Your task to perform on an android device: Go to display settings Image 0: 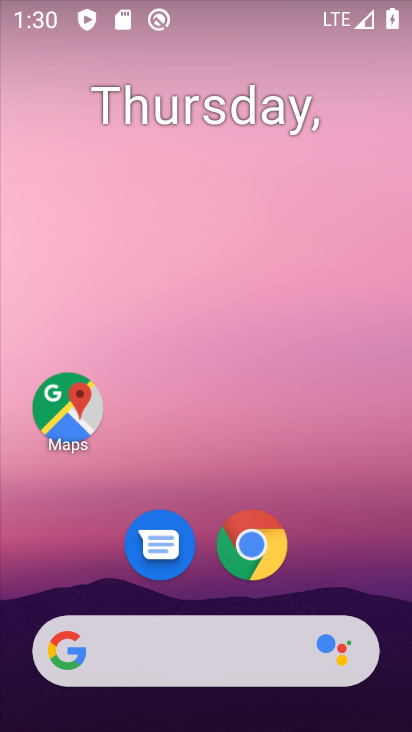
Step 0: drag from (126, 703) to (218, 111)
Your task to perform on an android device: Go to display settings Image 1: 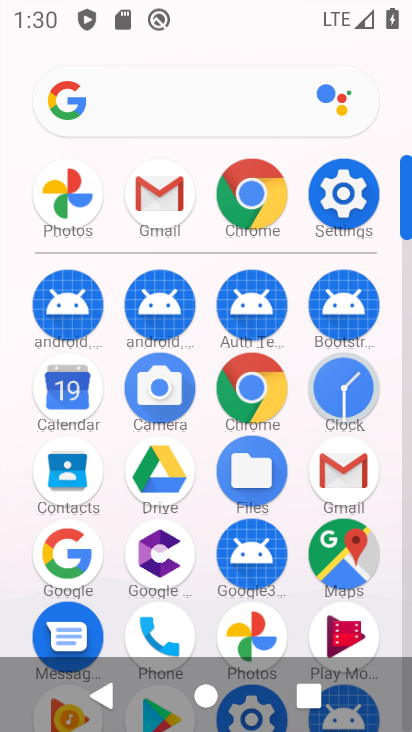
Step 1: click (337, 194)
Your task to perform on an android device: Go to display settings Image 2: 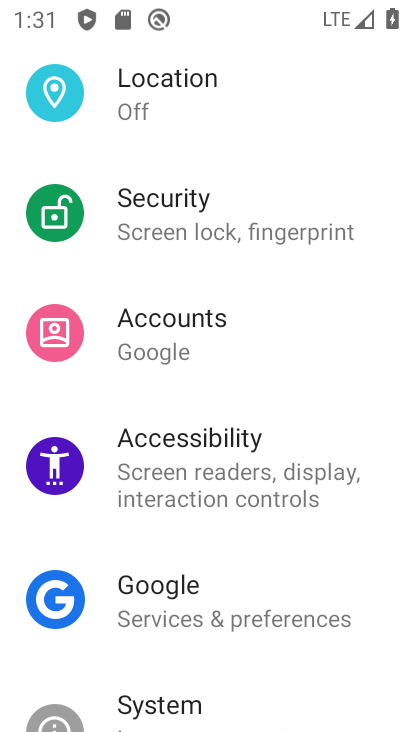
Step 2: drag from (262, 611) to (165, 44)
Your task to perform on an android device: Go to display settings Image 3: 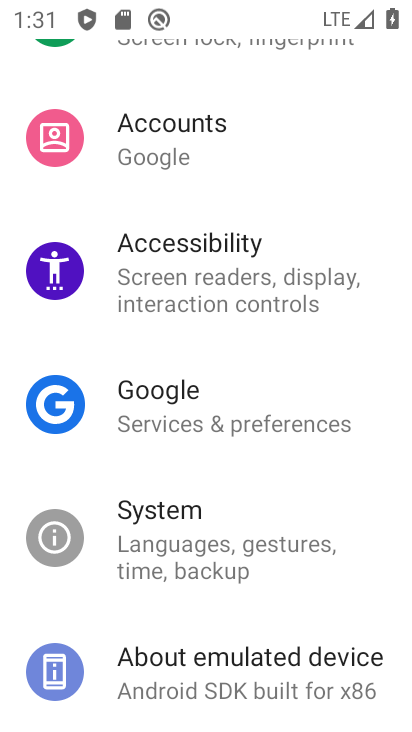
Step 3: drag from (233, 575) to (146, 68)
Your task to perform on an android device: Go to display settings Image 4: 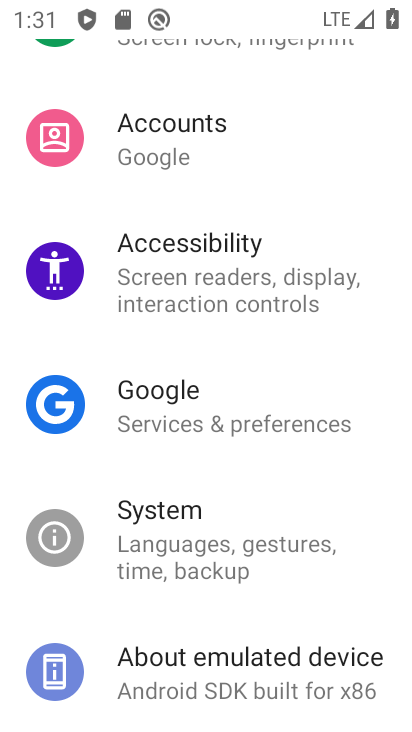
Step 4: drag from (228, 623) to (77, 3)
Your task to perform on an android device: Go to display settings Image 5: 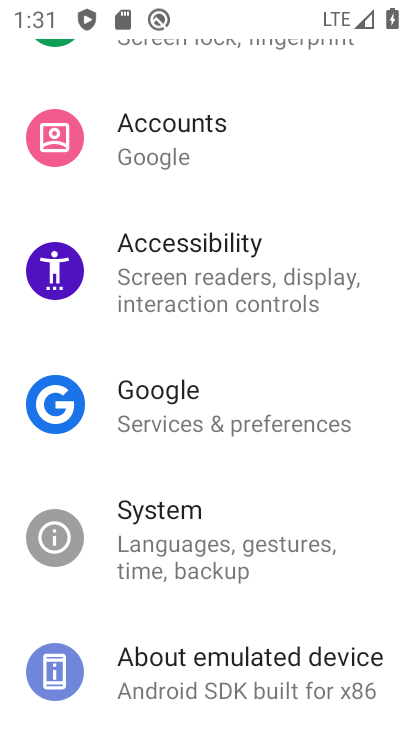
Step 5: drag from (306, 242) to (340, 689)
Your task to perform on an android device: Go to display settings Image 6: 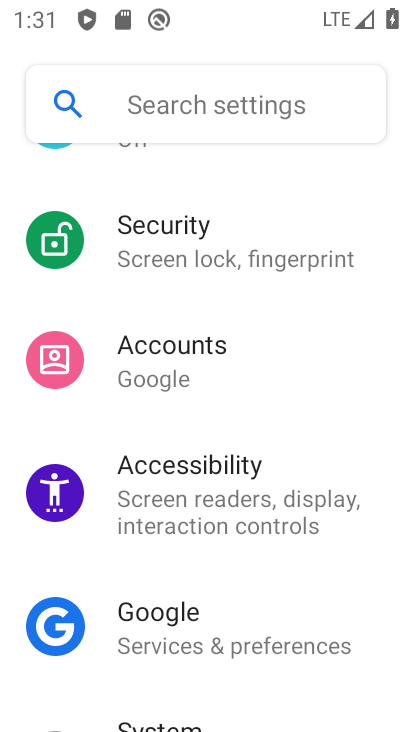
Step 6: drag from (301, 205) to (291, 725)
Your task to perform on an android device: Go to display settings Image 7: 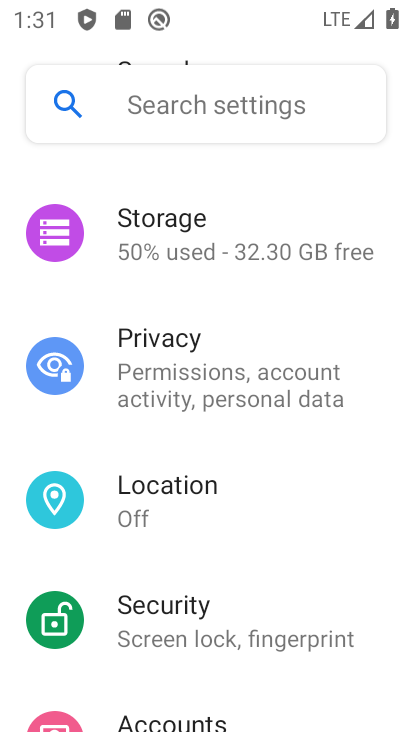
Step 7: drag from (326, 170) to (350, 664)
Your task to perform on an android device: Go to display settings Image 8: 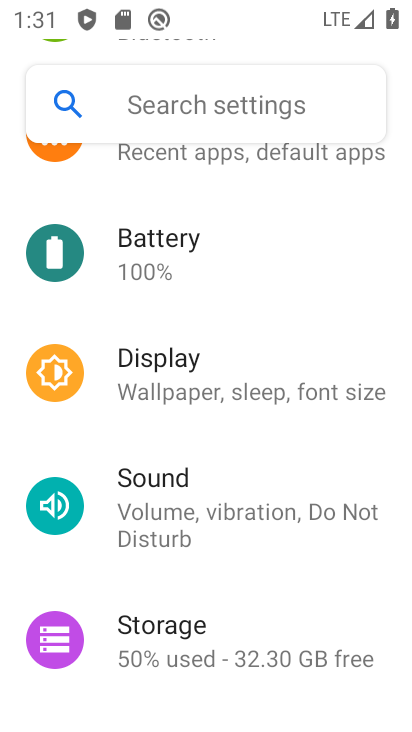
Step 8: click (247, 424)
Your task to perform on an android device: Go to display settings Image 9: 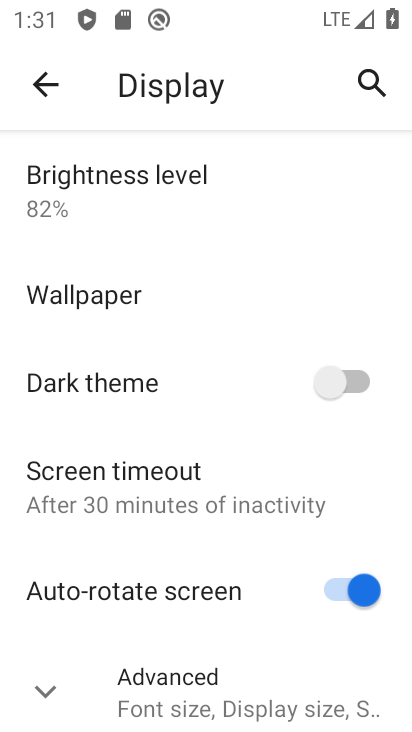
Step 9: task complete